Your task to perform on an android device: turn off notifications settings in the gmail app Image 0: 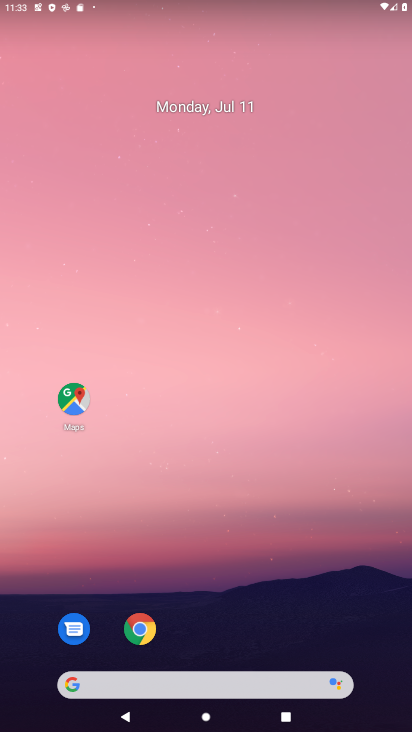
Step 0: drag from (269, 653) to (200, 27)
Your task to perform on an android device: turn off notifications settings in the gmail app Image 1: 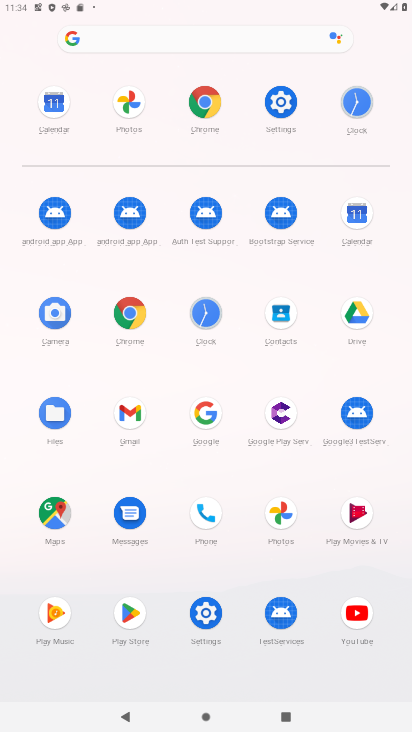
Step 1: click (120, 416)
Your task to perform on an android device: turn off notifications settings in the gmail app Image 2: 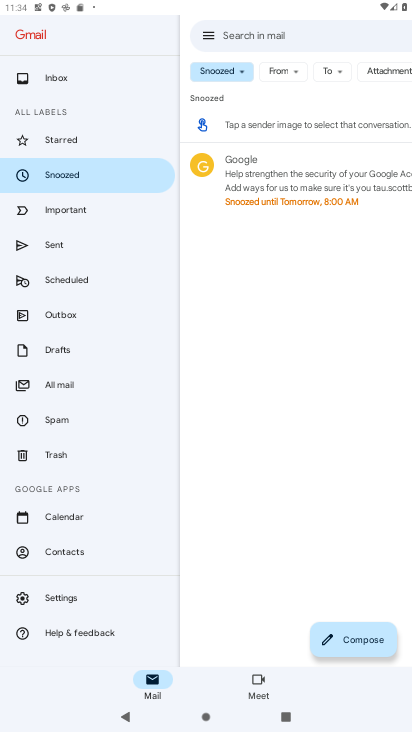
Step 2: click (132, 607)
Your task to perform on an android device: turn off notifications settings in the gmail app Image 3: 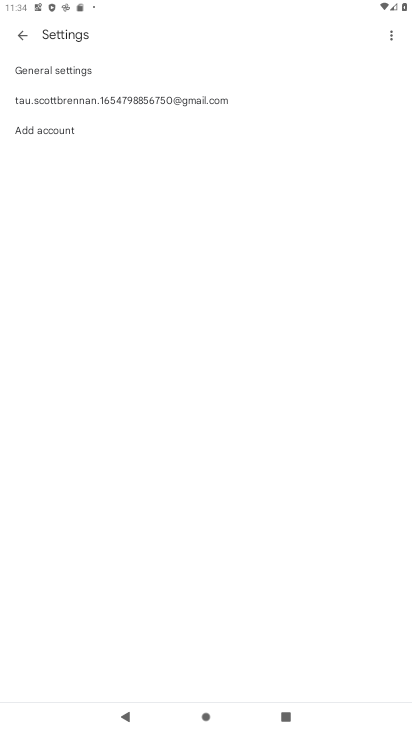
Step 3: click (122, 80)
Your task to perform on an android device: turn off notifications settings in the gmail app Image 4: 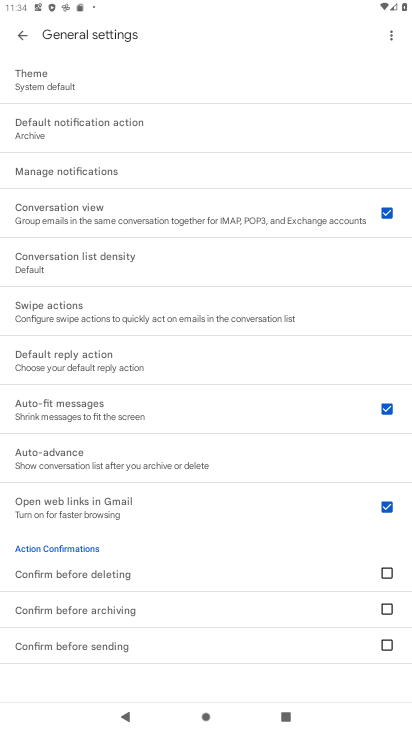
Step 4: drag from (131, 180) to (234, 505)
Your task to perform on an android device: turn off notifications settings in the gmail app Image 5: 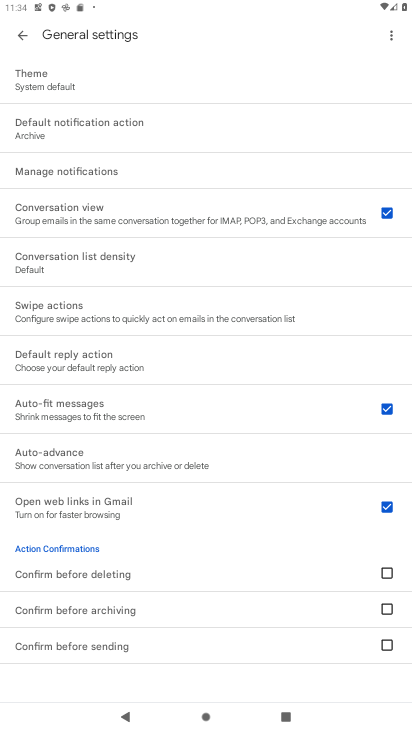
Step 5: click (201, 141)
Your task to perform on an android device: turn off notifications settings in the gmail app Image 6: 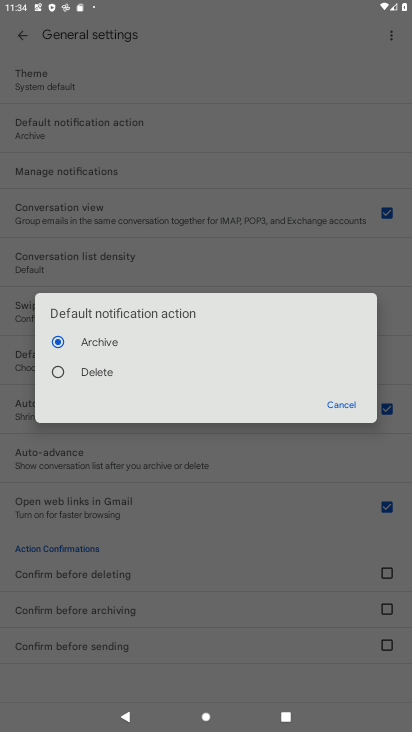
Step 6: click (333, 403)
Your task to perform on an android device: turn off notifications settings in the gmail app Image 7: 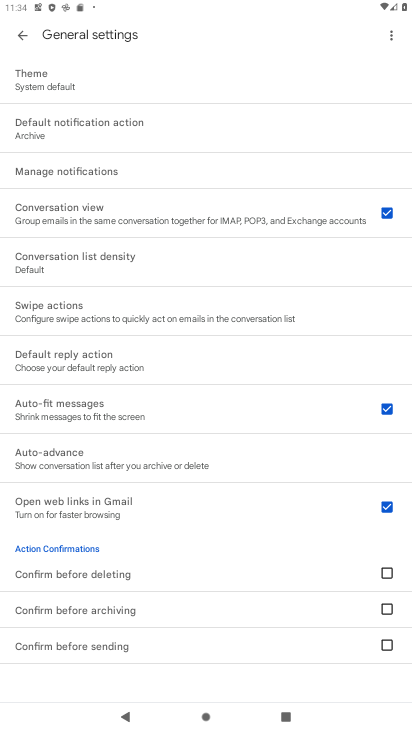
Step 7: task complete